Your task to perform on an android device: turn on the 24-hour format for clock Image 0: 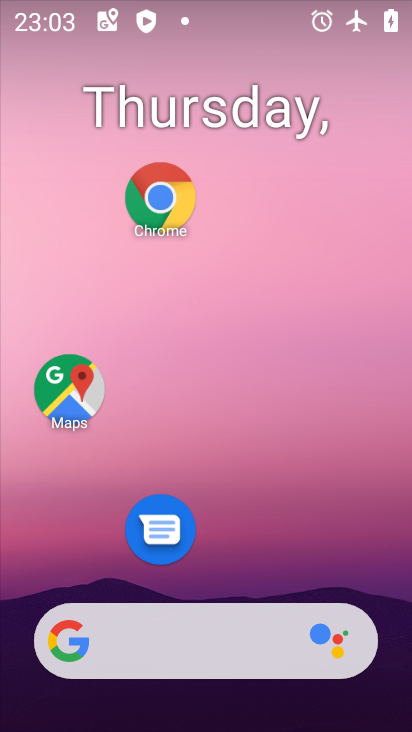
Step 0: drag from (230, 469) to (176, 76)
Your task to perform on an android device: turn on the 24-hour format for clock Image 1: 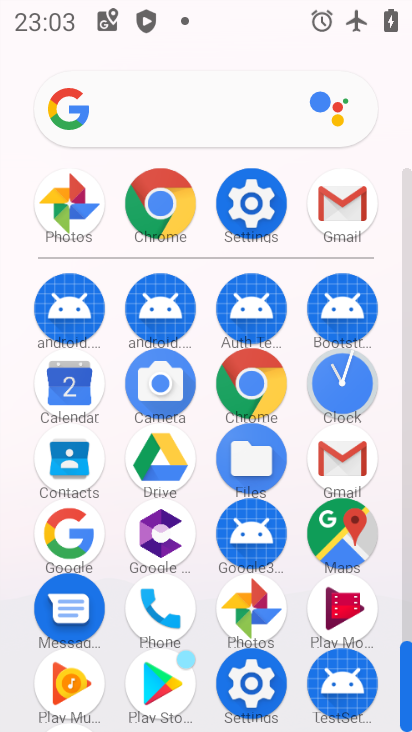
Step 1: click (345, 384)
Your task to perform on an android device: turn on the 24-hour format for clock Image 2: 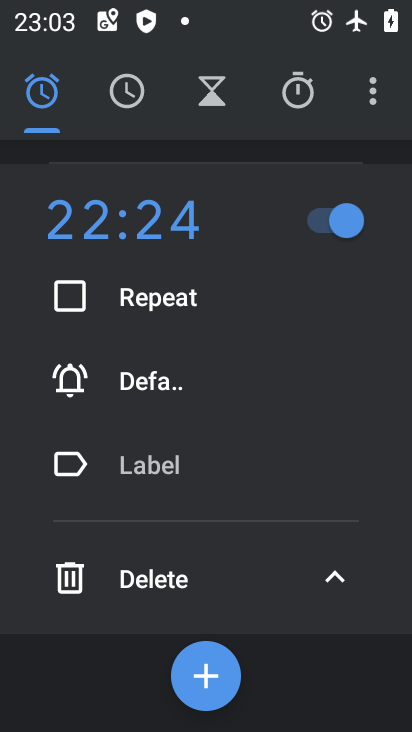
Step 2: click (372, 95)
Your task to perform on an android device: turn on the 24-hour format for clock Image 3: 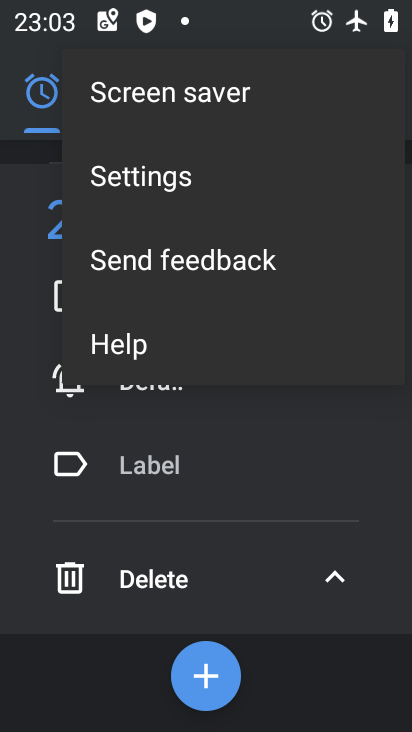
Step 3: click (170, 176)
Your task to perform on an android device: turn on the 24-hour format for clock Image 4: 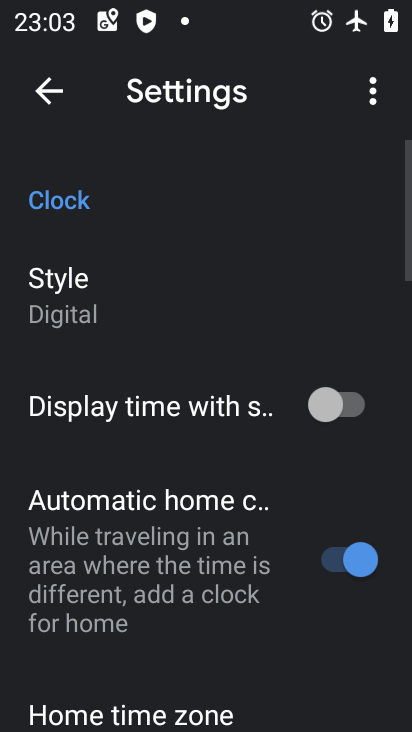
Step 4: drag from (266, 655) to (248, 249)
Your task to perform on an android device: turn on the 24-hour format for clock Image 5: 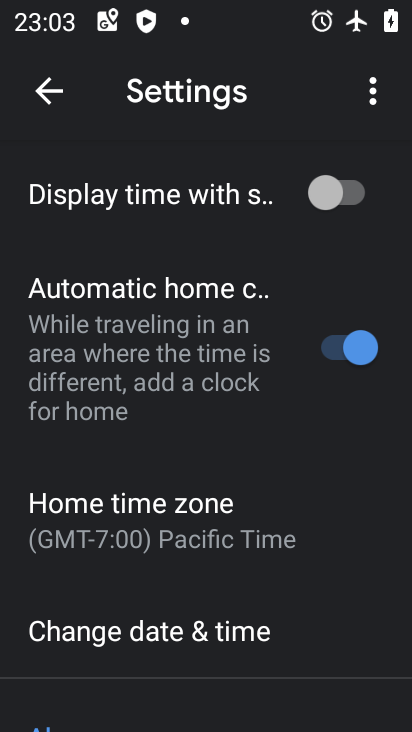
Step 5: drag from (241, 574) to (241, 289)
Your task to perform on an android device: turn on the 24-hour format for clock Image 6: 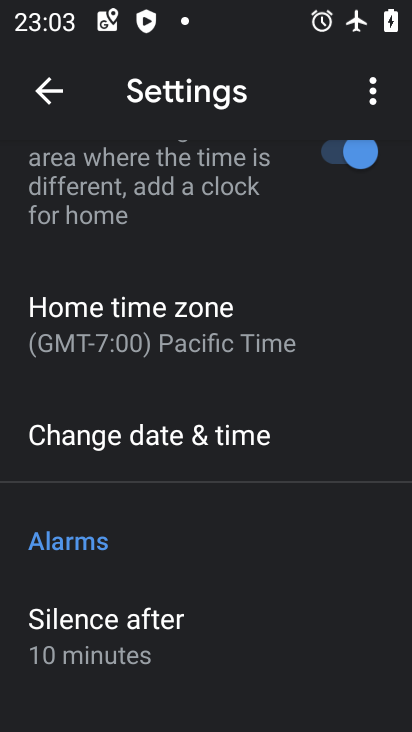
Step 6: drag from (259, 533) to (253, 220)
Your task to perform on an android device: turn on the 24-hour format for clock Image 7: 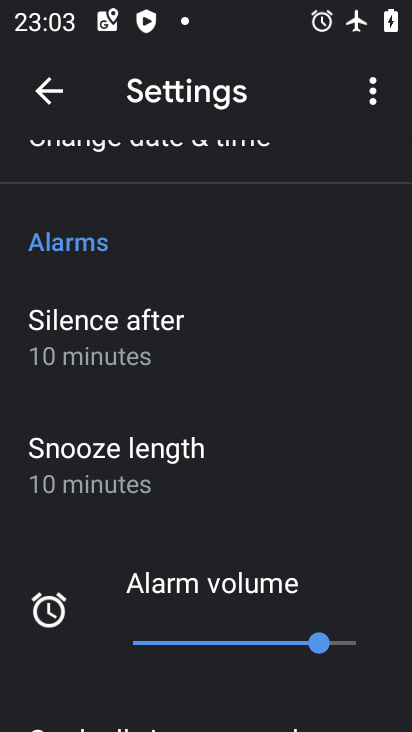
Step 7: drag from (245, 502) to (267, 265)
Your task to perform on an android device: turn on the 24-hour format for clock Image 8: 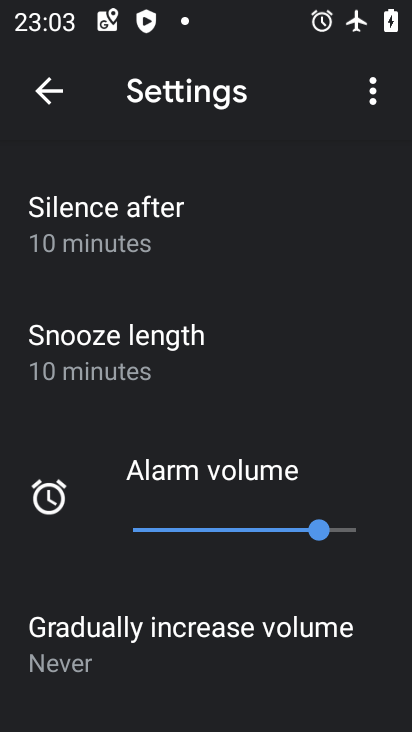
Step 8: drag from (272, 238) to (213, 601)
Your task to perform on an android device: turn on the 24-hour format for clock Image 9: 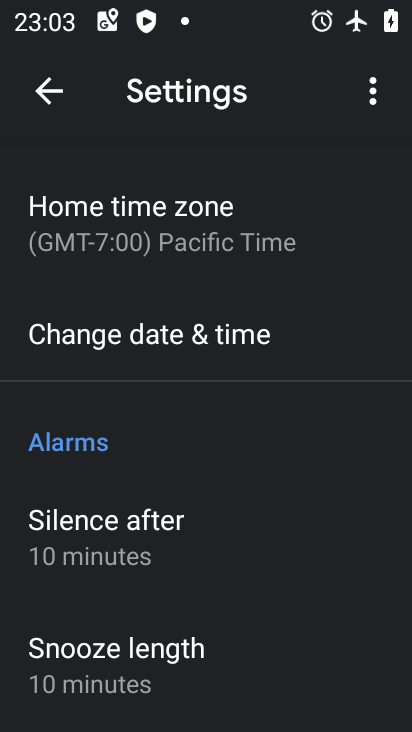
Step 9: click (153, 329)
Your task to perform on an android device: turn on the 24-hour format for clock Image 10: 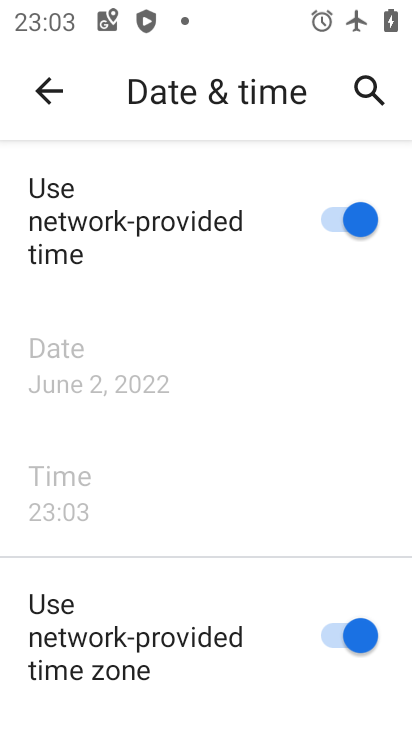
Step 10: task complete